Your task to perform on an android device: turn smart compose on in the gmail app Image 0: 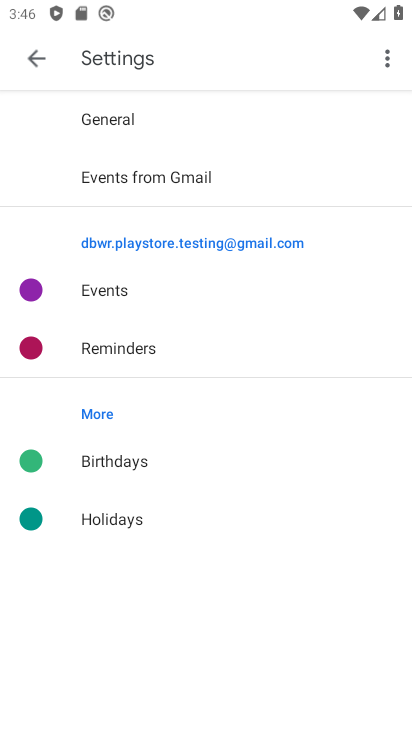
Step 0: press home button
Your task to perform on an android device: turn smart compose on in the gmail app Image 1: 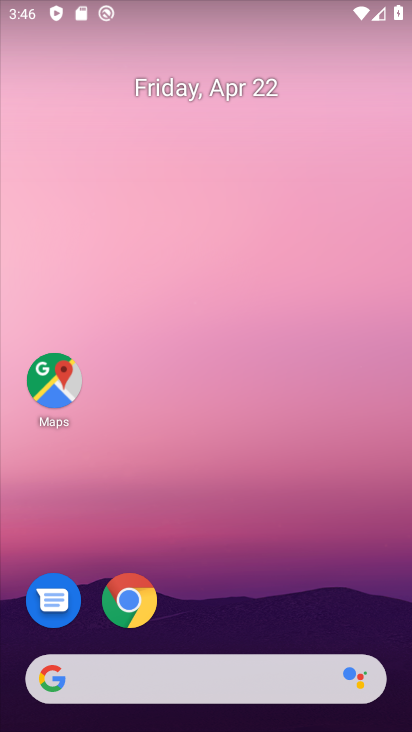
Step 1: drag from (211, 641) to (377, 20)
Your task to perform on an android device: turn smart compose on in the gmail app Image 2: 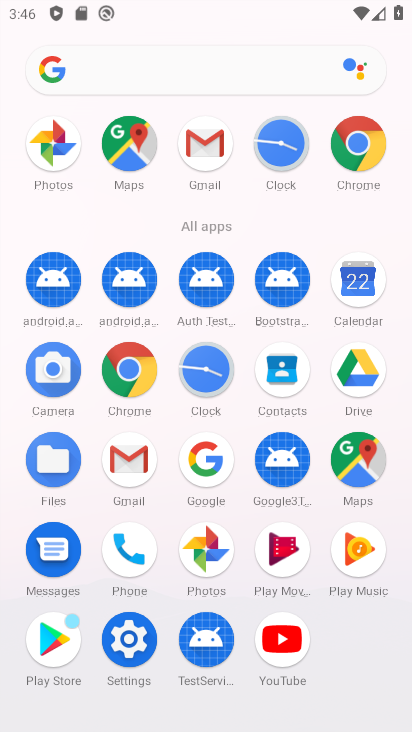
Step 2: click (137, 453)
Your task to perform on an android device: turn smart compose on in the gmail app Image 3: 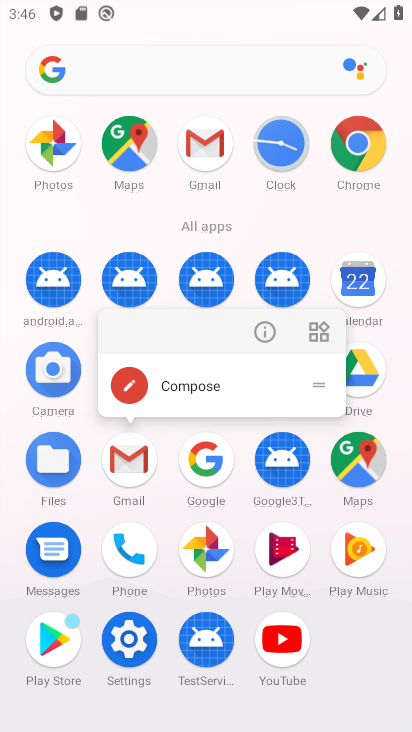
Step 3: click (131, 463)
Your task to perform on an android device: turn smart compose on in the gmail app Image 4: 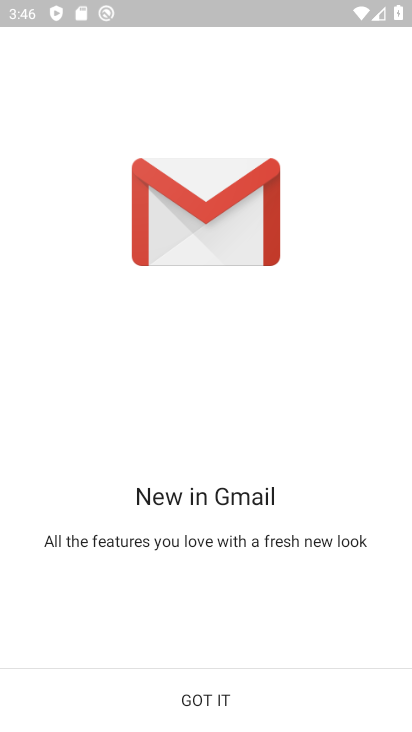
Step 4: click (213, 692)
Your task to perform on an android device: turn smart compose on in the gmail app Image 5: 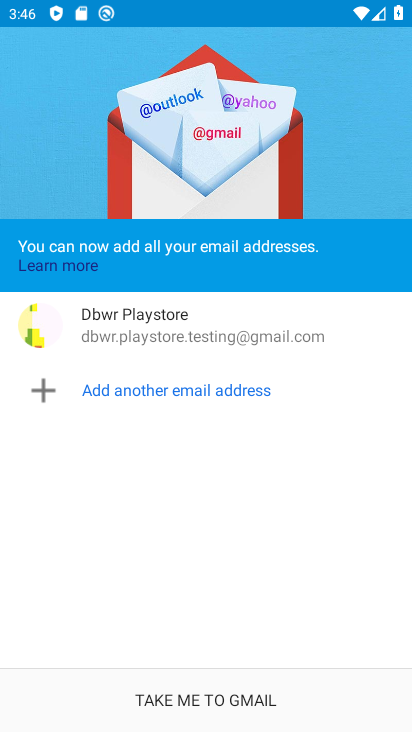
Step 5: click (205, 693)
Your task to perform on an android device: turn smart compose on in the gmail app Image 6: 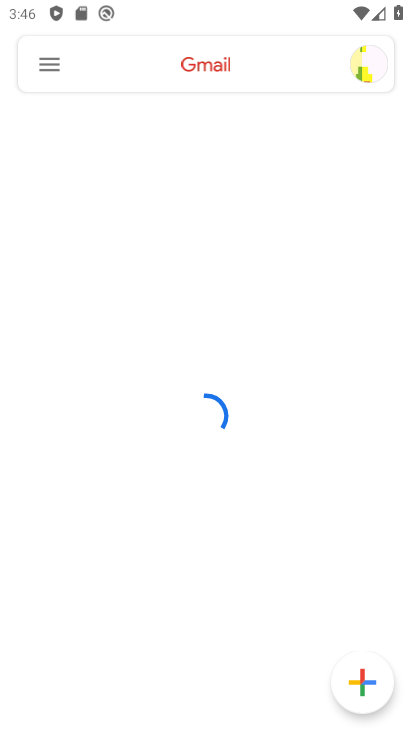
Step 6: click (58, 62)
Your task to perform on an android device: turn smart compose on in the gmail app Image 7: 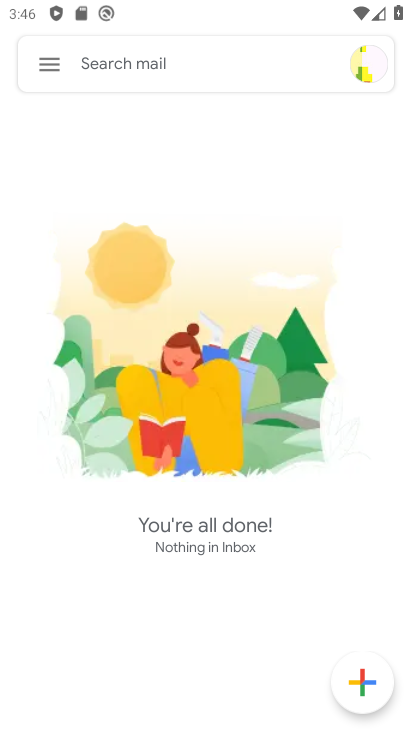
Step 7: click (58, 62)
Your task to perform on an android device: turn smart compose on in the gmail app Image 8: 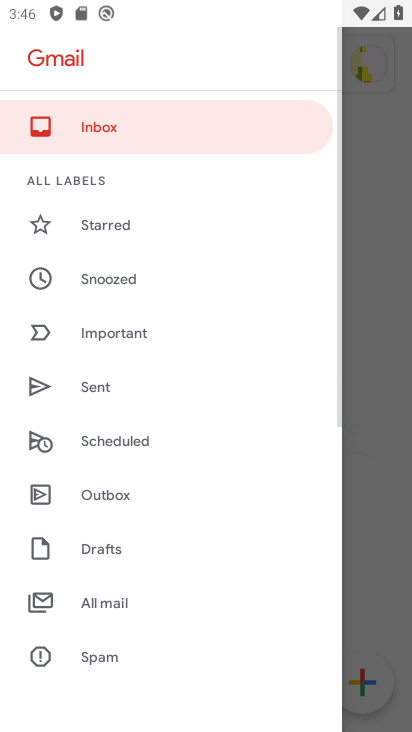
Step 8: drag from (143, 605) to (277, 181)
Your task to perform on an android device: turn smart compose on in the gmail app Image 9: 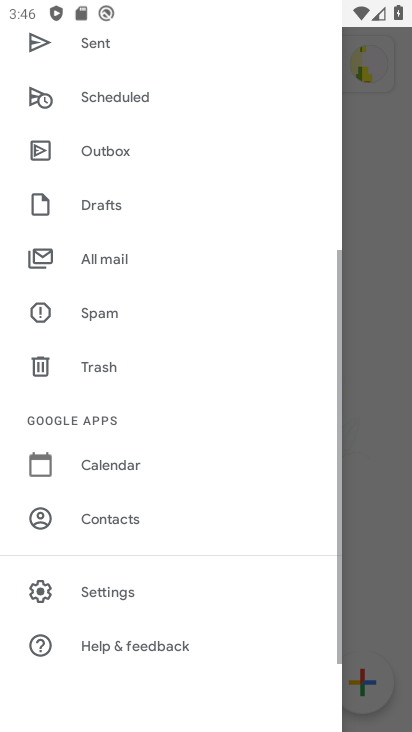
Step 9: click (130, 589)
Your task to perform on an android device: turn smart compose on in the gmail app Image 10: 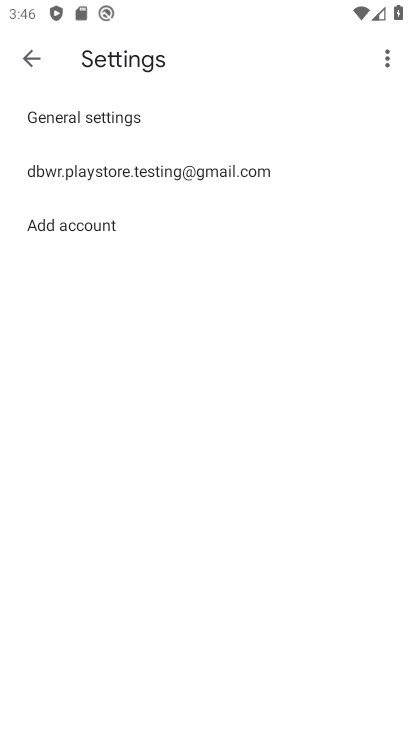
Step 10: click (215, 184)
Your task to perform on an android device: turn smart compose on in the gmail app Image 11: 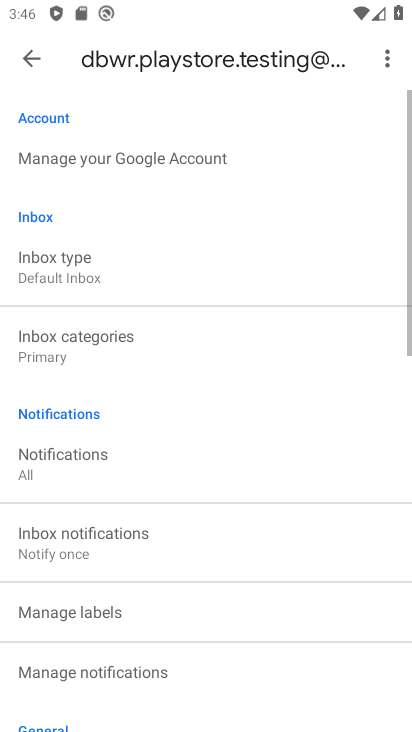
Step 11: task complete